Your task to perform on an android device: clear all cookies in the chrome app Image 0: 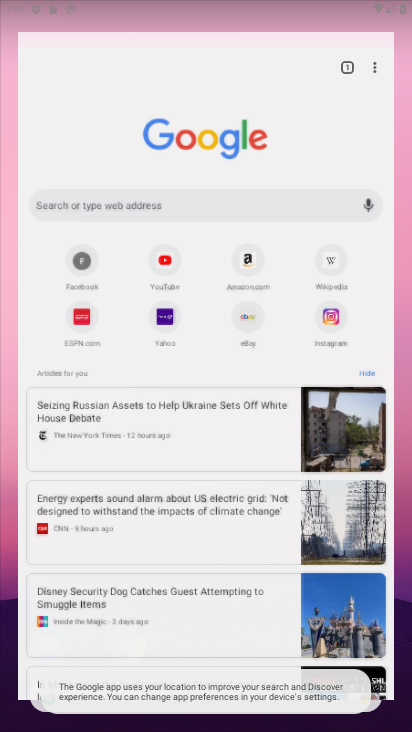
Step 0: drag from (278, 599) to (213, 113)
Your task to perform on an android device: clear all cookies in the chrome app Image 1: 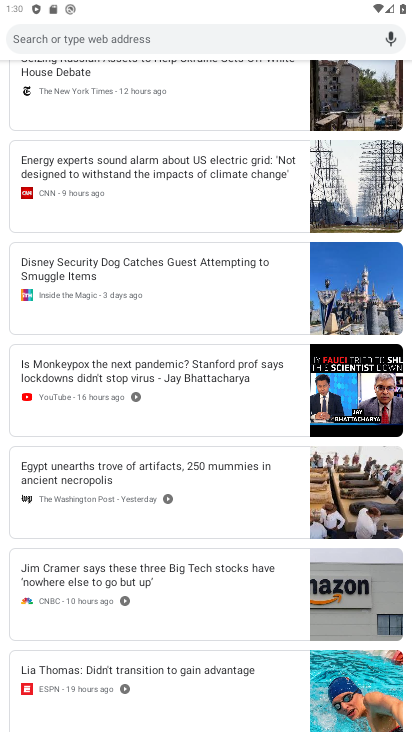
Step 1: drag from (224, 101) to (191, 505)
Your task to perform on an android device: clear all cookies in the chrome app Image 2: 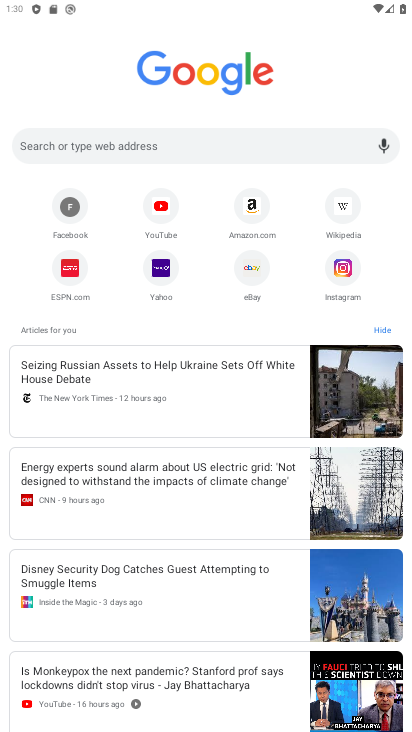
Step 2: drag from (190, 154) to (188, 448)
Your task to perform on an android device: clear all cookies in the chrome app Image 3: 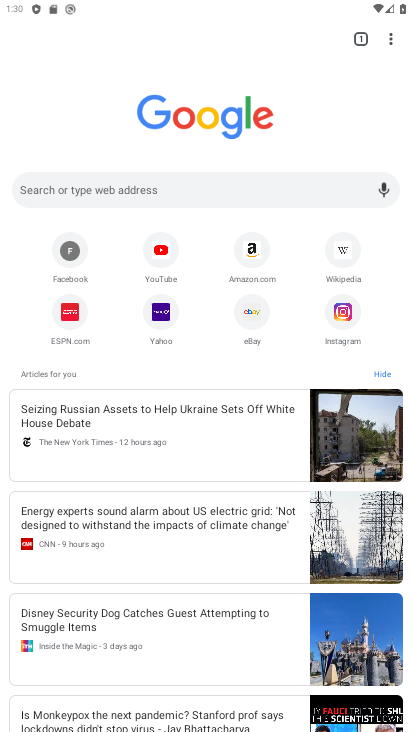
Step 3: drag from (387, 36) to (251, 325)
Your task to perform on an android device: clear all cookies in the chrome app Image 4: 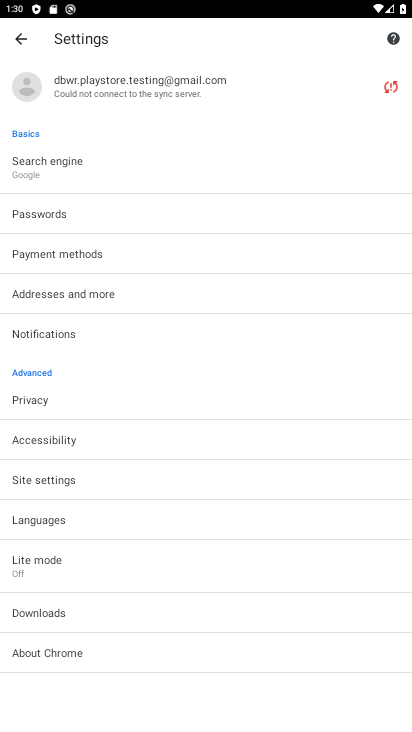
Step 4: click (63, 477)
Your task to perform on an android device: clear all cookies in the chrome app Image 5: 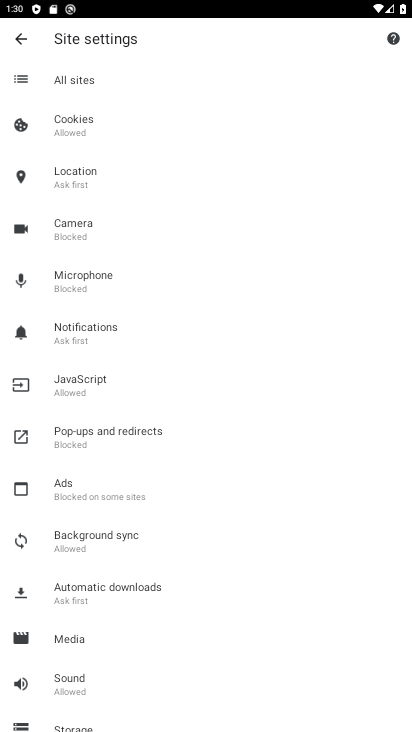
Step 5: click (98, 128)
Your task to perform on an android device: clear all cookies in the chrome app Image 6: 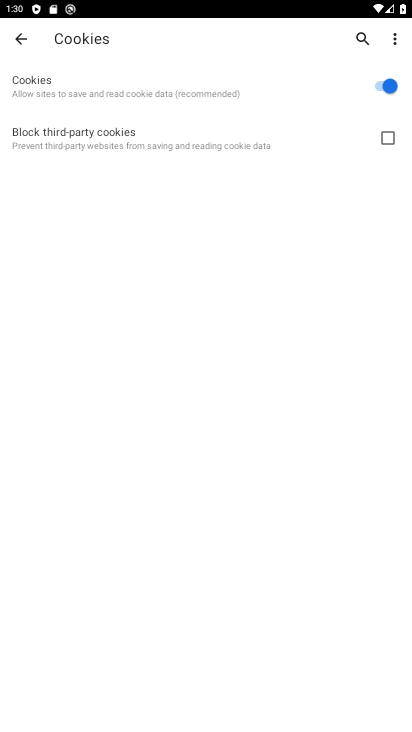
Step 6: task complete